Your task to perform on an android device: Search for vegetarian restaurants on Maps Image 0: 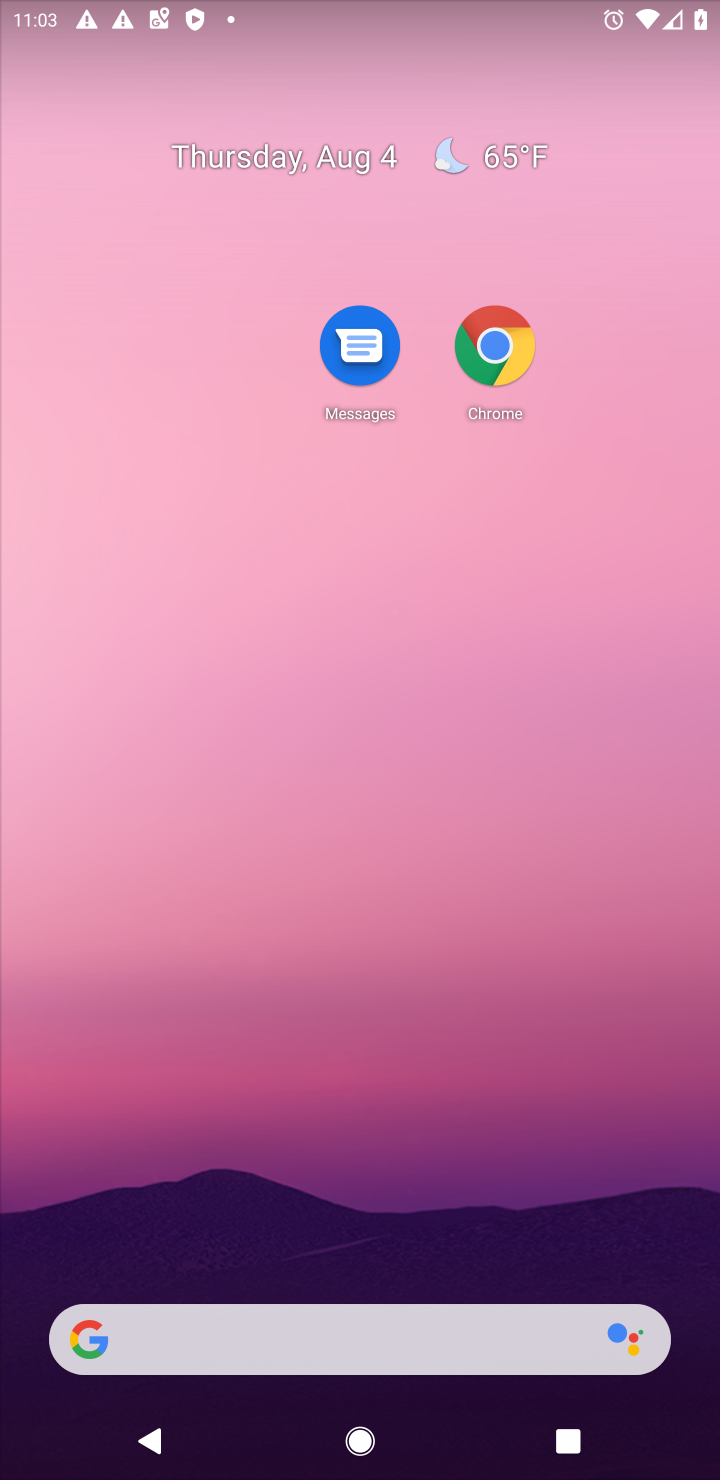
Step 0: drag from (502, 689) to (604, 141)
Your task to perform on an android device: Search for vegetarian restaurants on Maps Image 1: 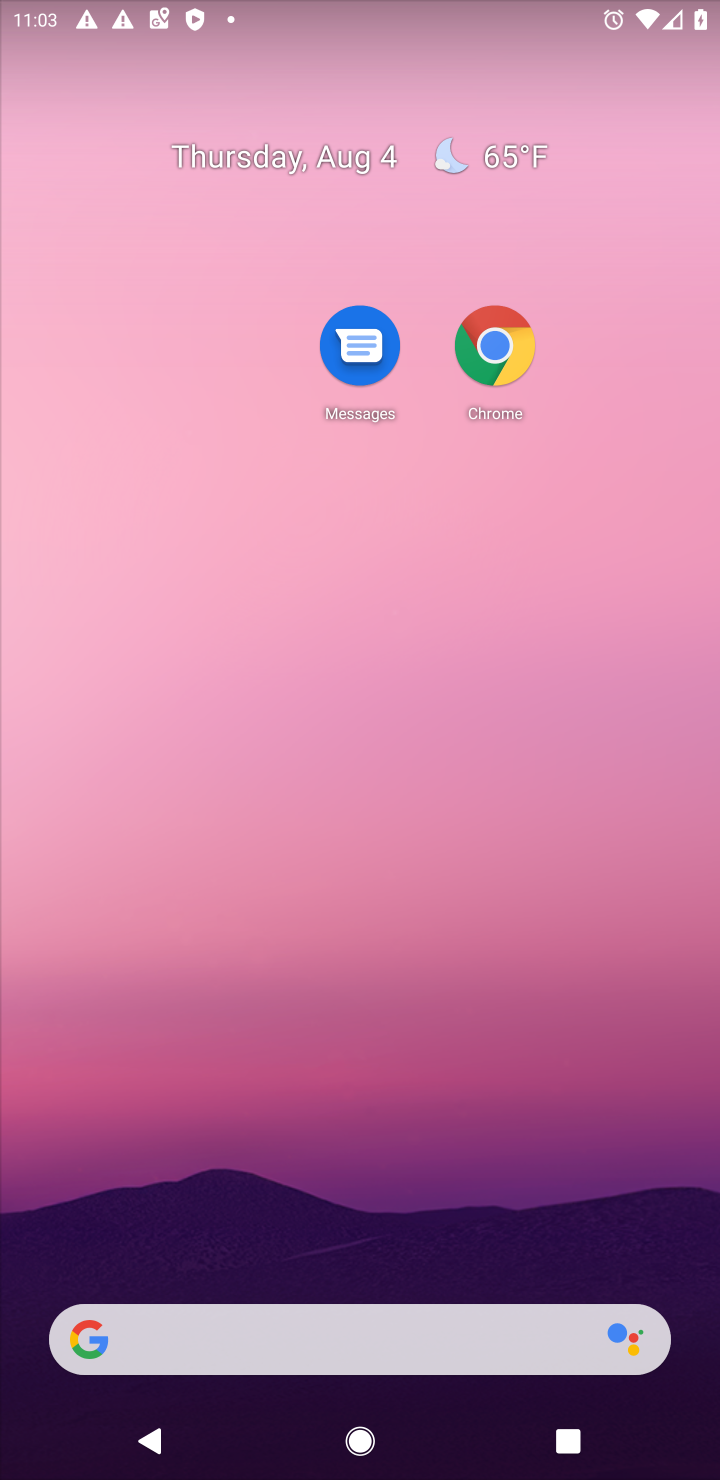
Step 1: drag from (402, 1292) to (495, 3)
Your task to perform on an android device: Search for vegetarian restaurants on Maps Image 2: 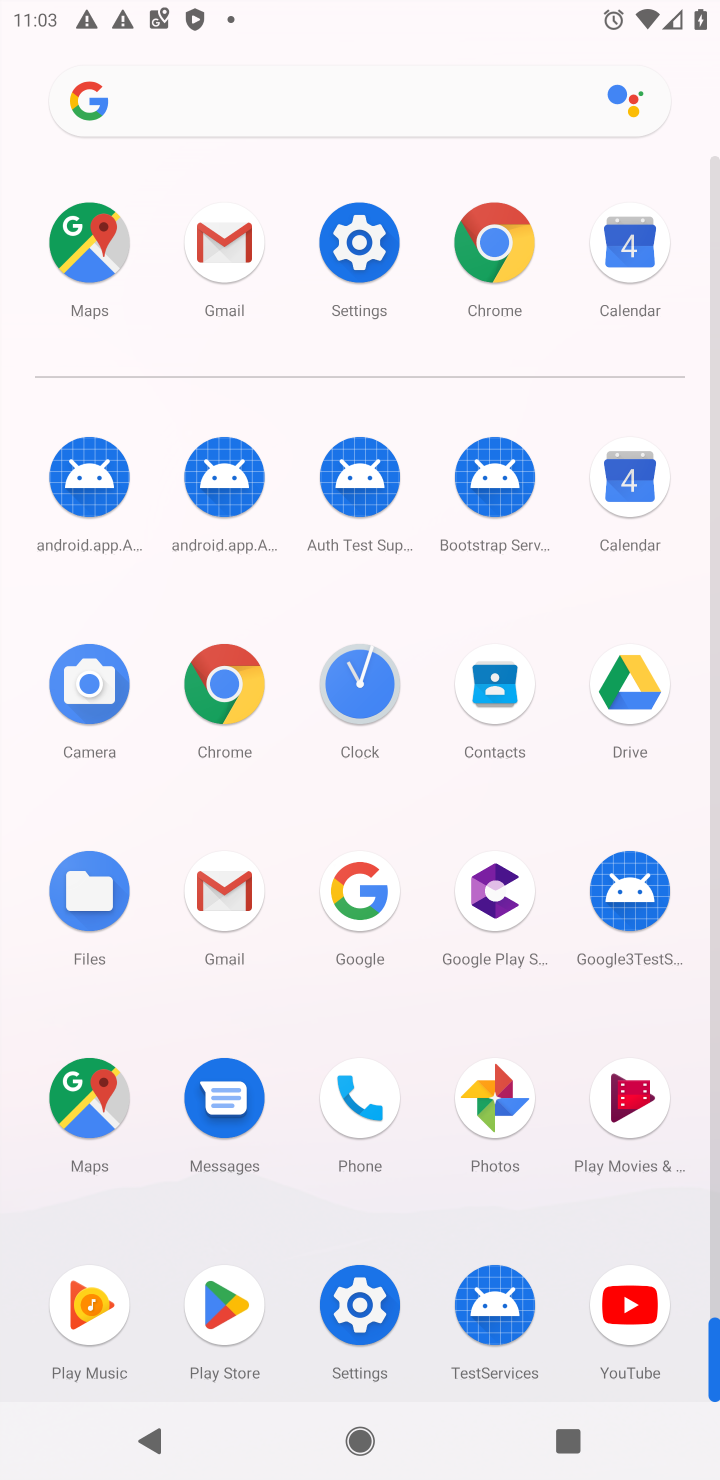
Step 2: drag from (652, 932) to (590, 120)
Your task to perform on an android device: Search for vegetarian restaurants on Maps Image 3: 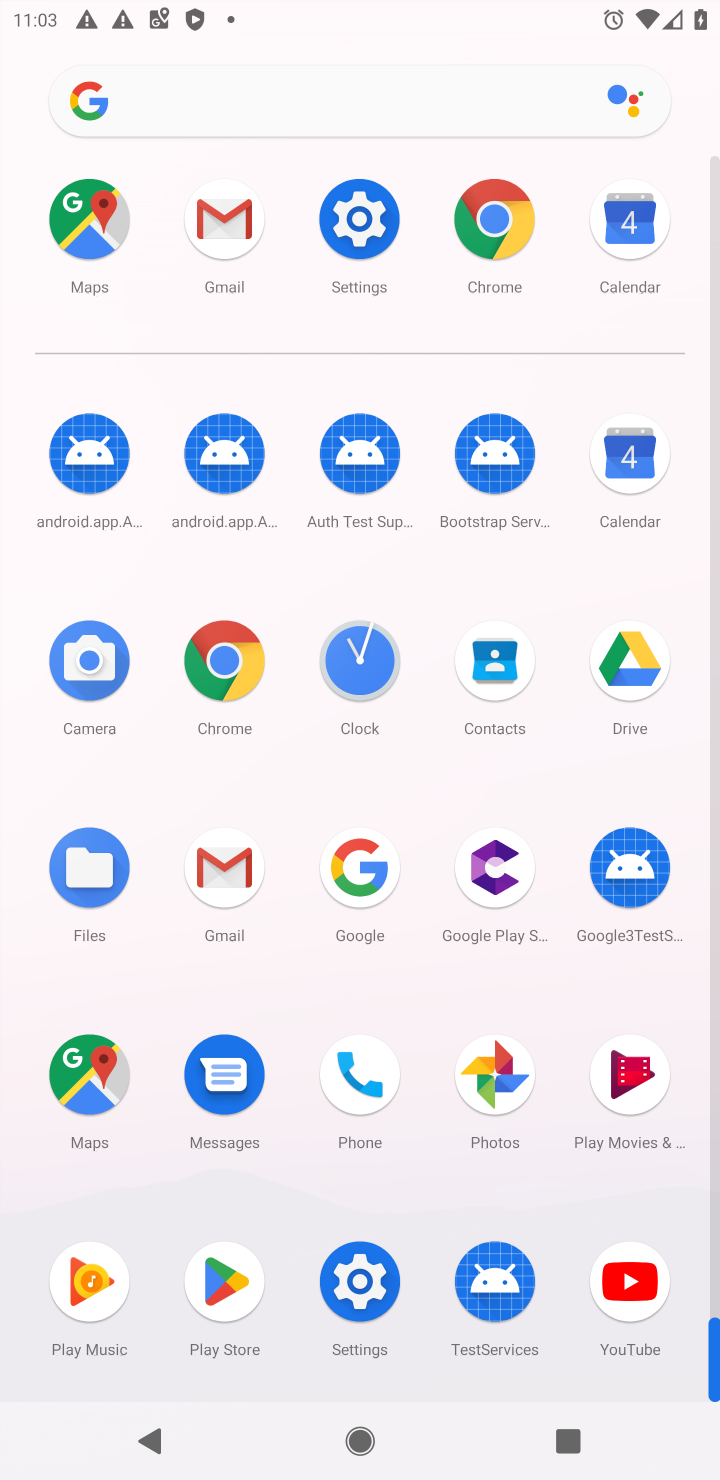
Step 3: click (83, 1062)
Your task to perform on an android device: Search for vegetarian restaurants on Maps Image 4: 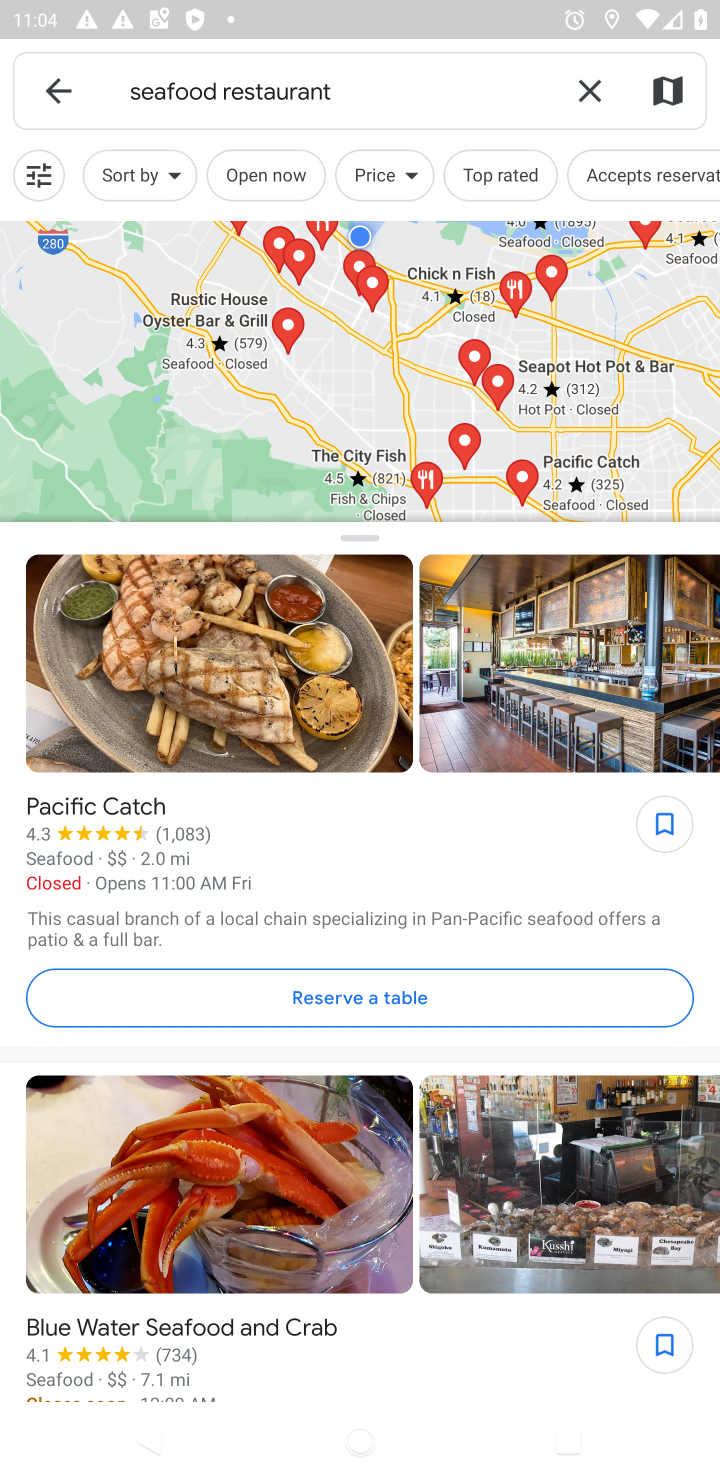
Step 4: click (591, 92)
Your task to perform on an android device: Search for vegetarian restaurants on Maps Image 5: 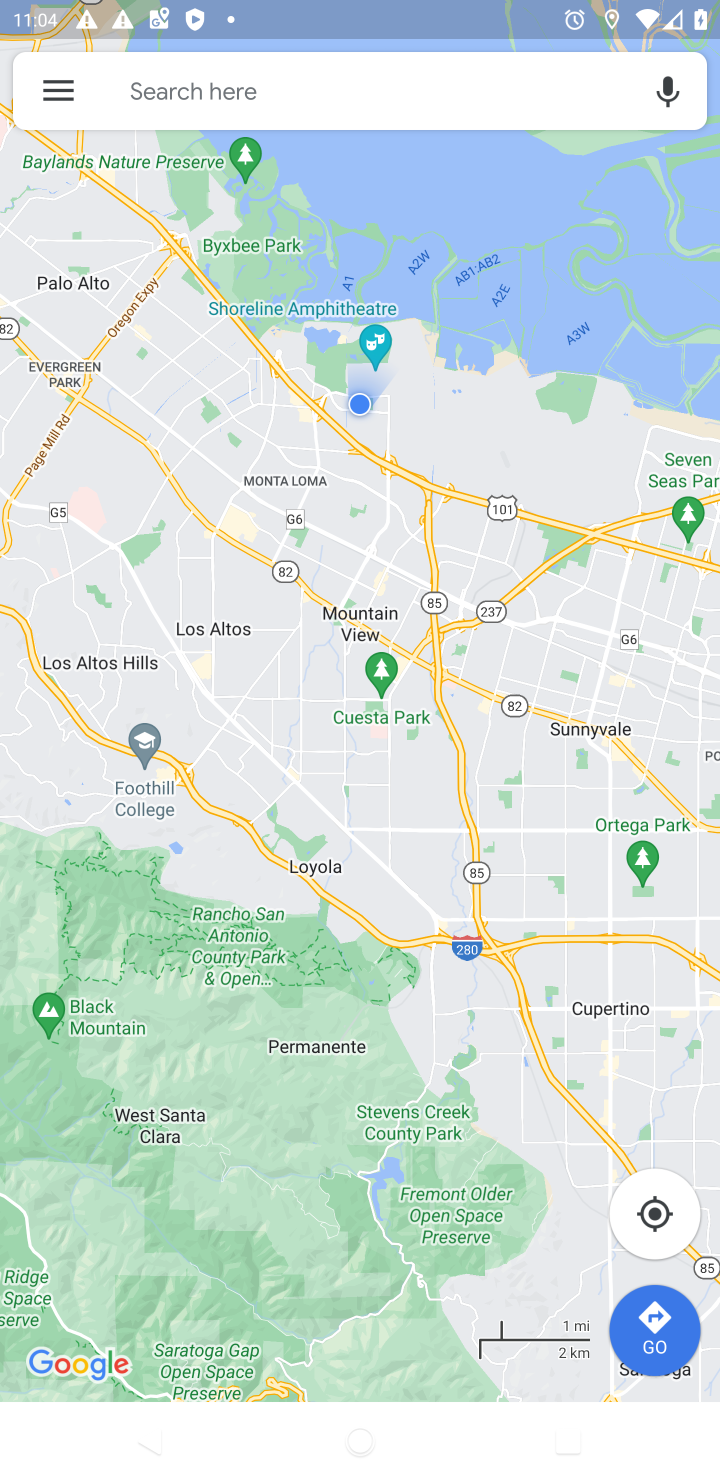
Step 5: click (389, 90)
Your task to perform on an android device: Search for vegetarian restaurants on Maps Image 6: 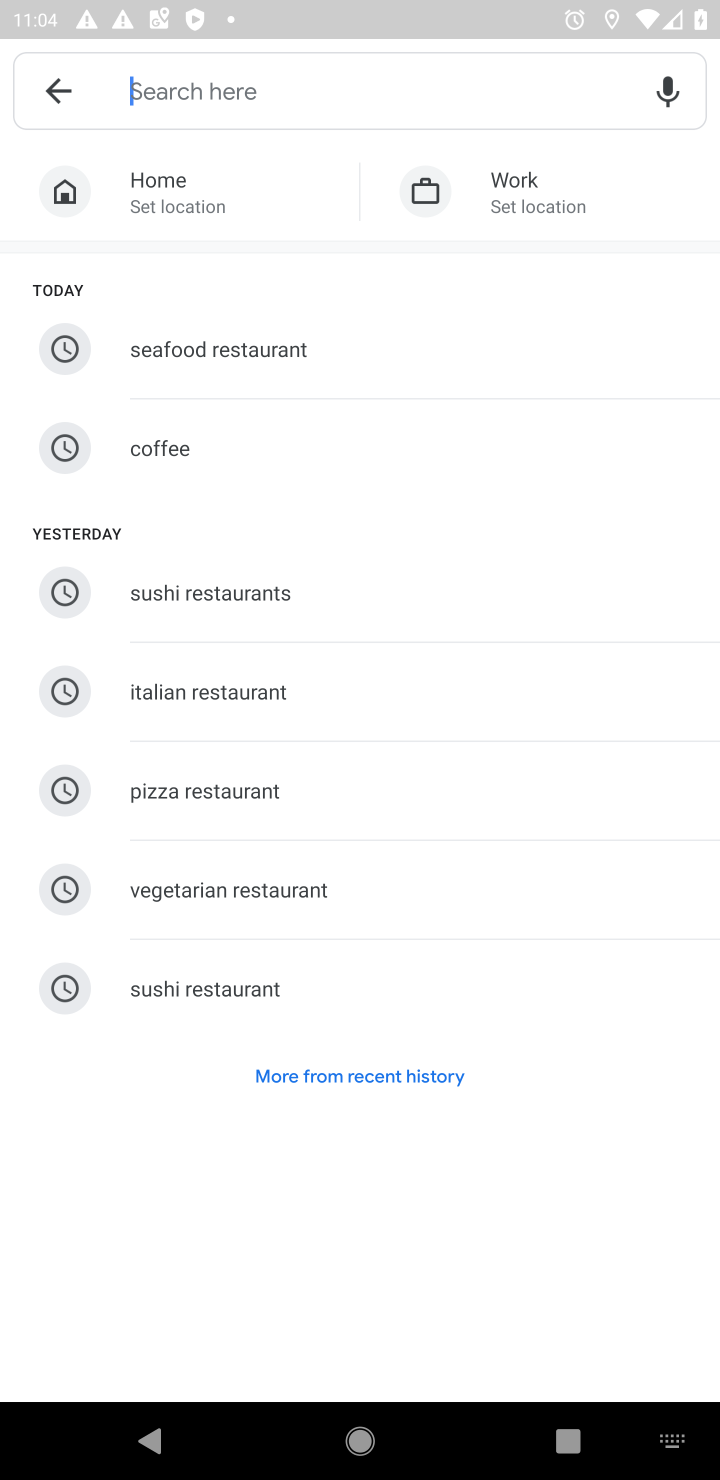
Step 6: click (245, 888)
Your task to perform on an android device: Search for vegetarian restaurants on Maps Image 7: 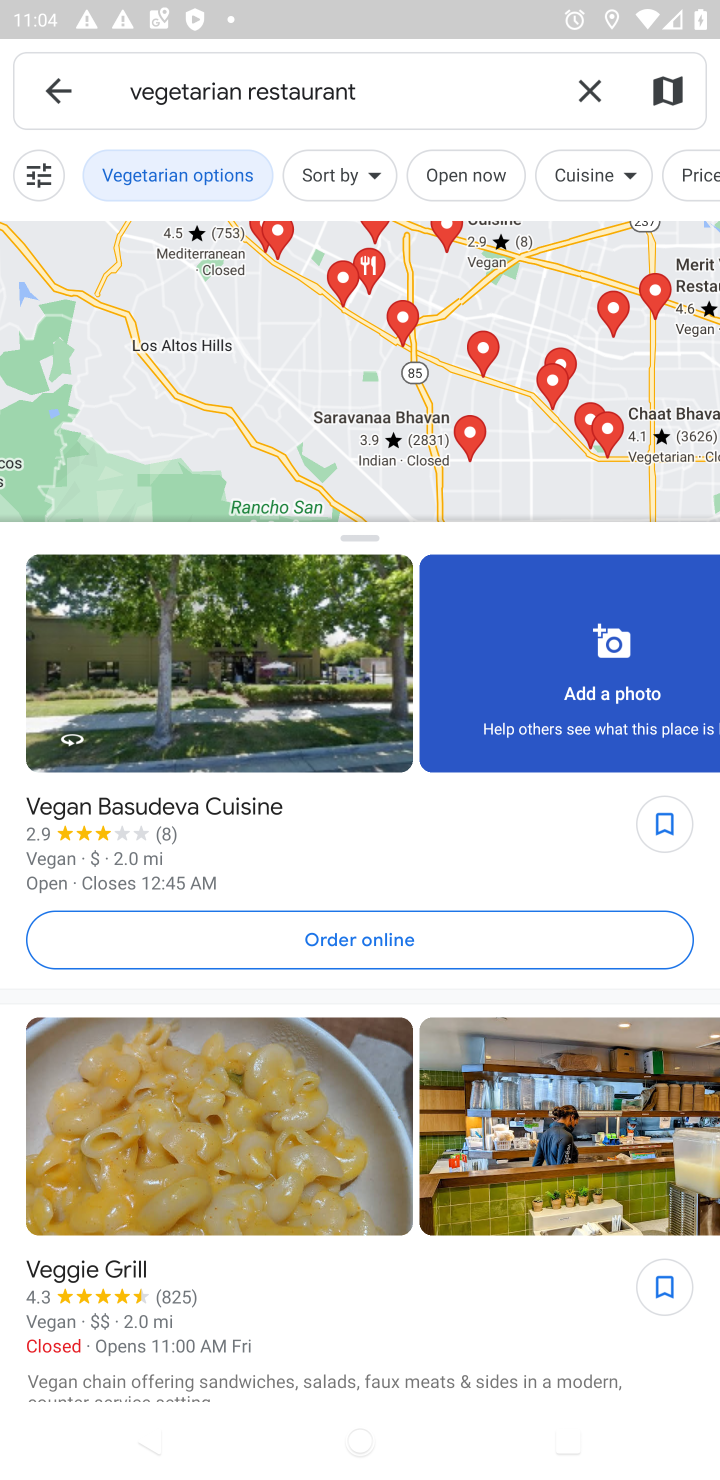
Step 7: task complete